Your task to perform on an android device: change the clock style Image 0: 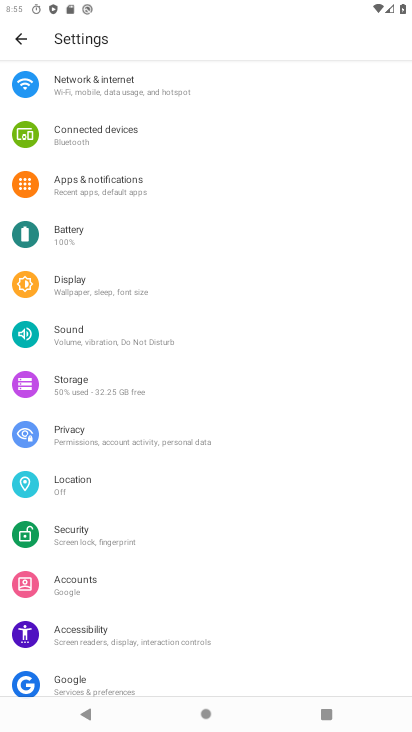
Step 0: press home button
Your task to perform on an android device: change the clock style Image 1: 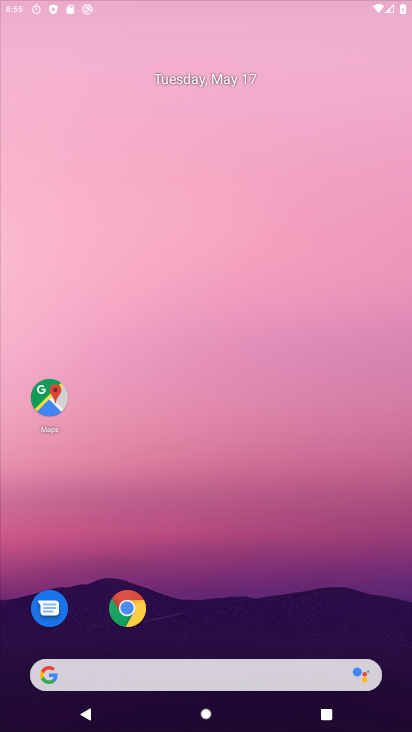
Step 1: drag from (347, 610) to (338, 97)
Your task to perform on an android device: change the clock style Image 2: 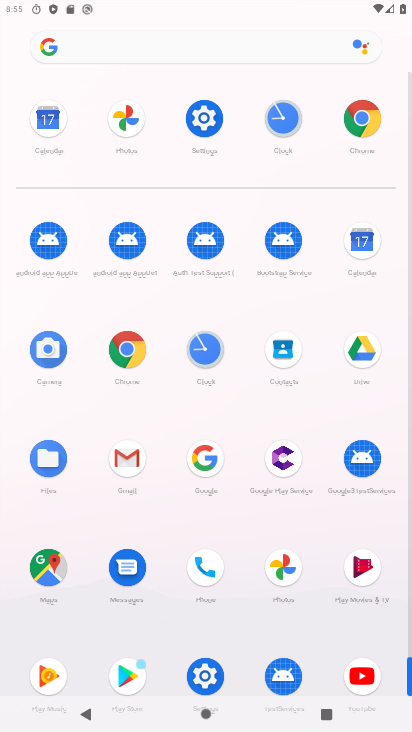
Step 2: click (206, 319)
Your task to perform on an android device: change the clock style Image 3: 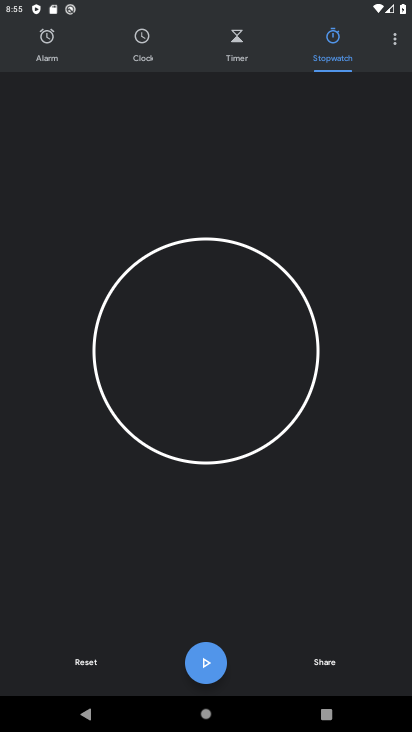
Step 3: click (400, 45)
Your task to perform on an android device: change the clock style Image 4: 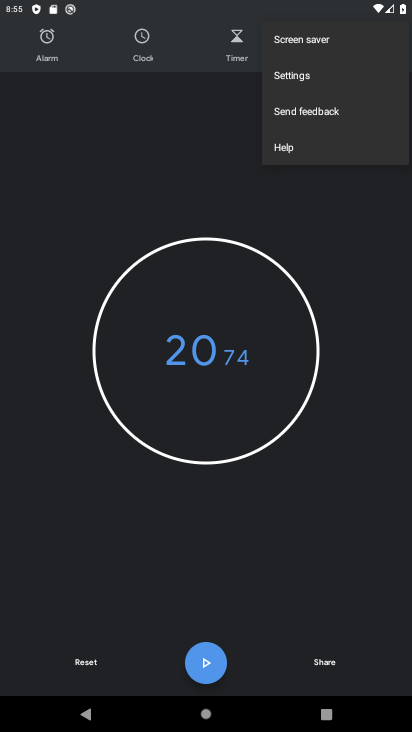
Step 4: click (308, 63)
Your task to perform on an android device: change the clock style Image 5: 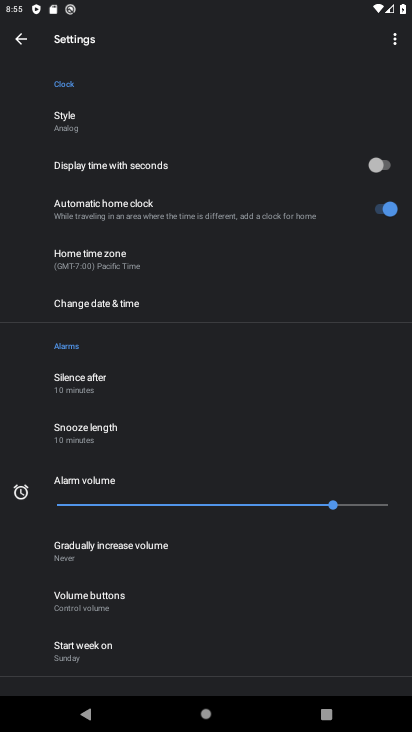
Step 5: click (146, 124)
Your task to perform on an android device: change the clock style Image 6: 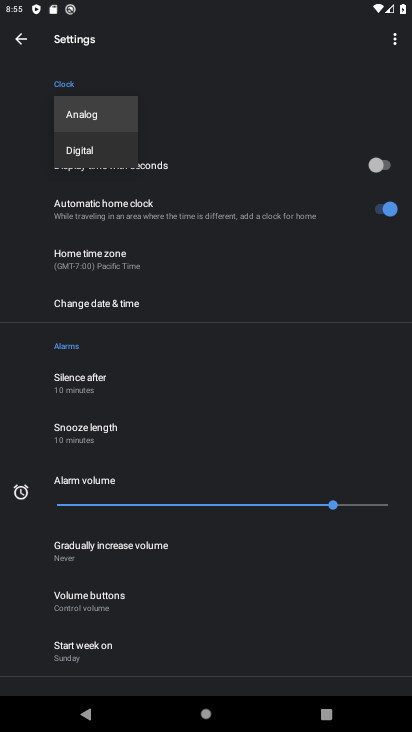
Step 6: click (82, 148)
Your task to perform on an android device: change the clock style Image 7: 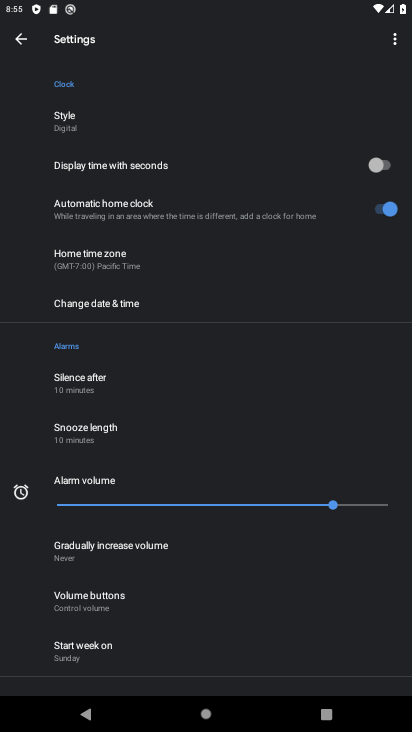
Step 7: task complete